Your task to perform on an android device: add a label to a message in the gmail app Image 0: 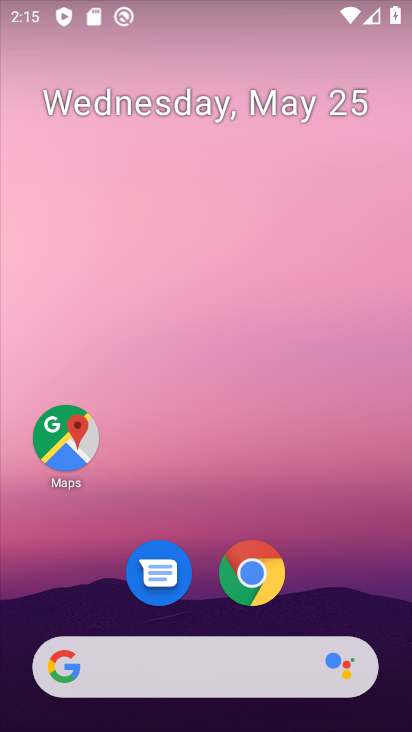
Step 0: drag from (70, 626) to (204, 146)
Your task to perform on an android device: add a label to a message in the gmail app Image 1: 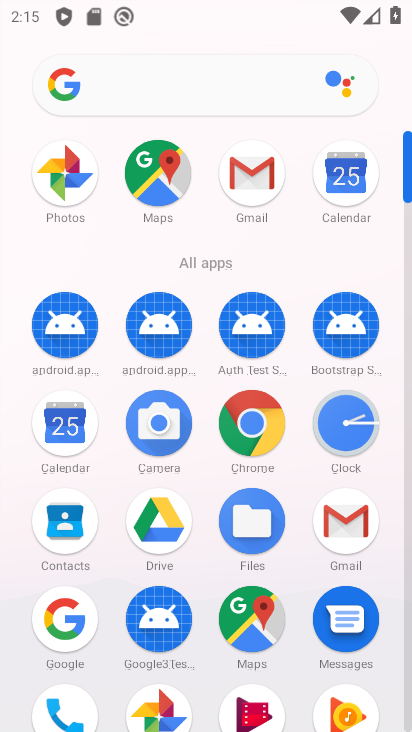
Step 1: click (337, 540)
Your task to perform on an android device: add a label to a message in the gmail app Image 2: 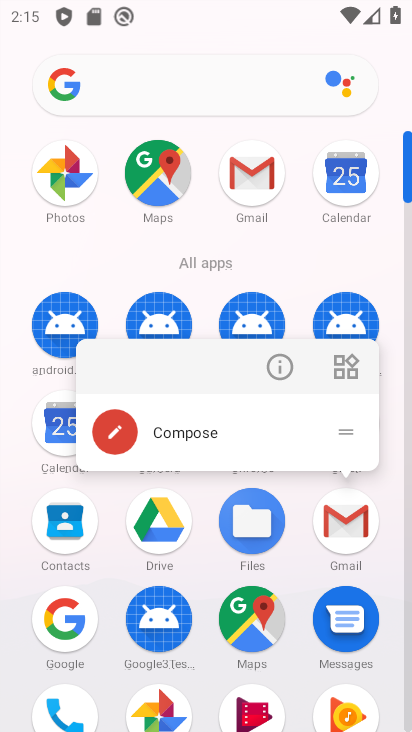
Step 2: click (341, 530)
Your task to perform on an android device: add a label to a message in the gmail app Image 3: 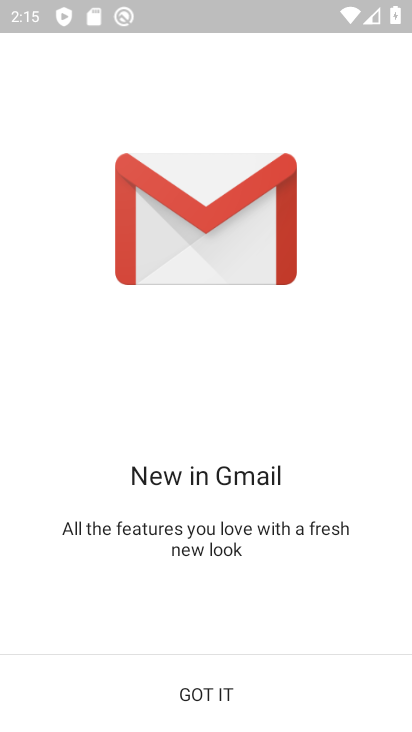
Step 3: click (215, 704)
Your task to perform on an android device: add a label to a message in the gmail app Image 4: 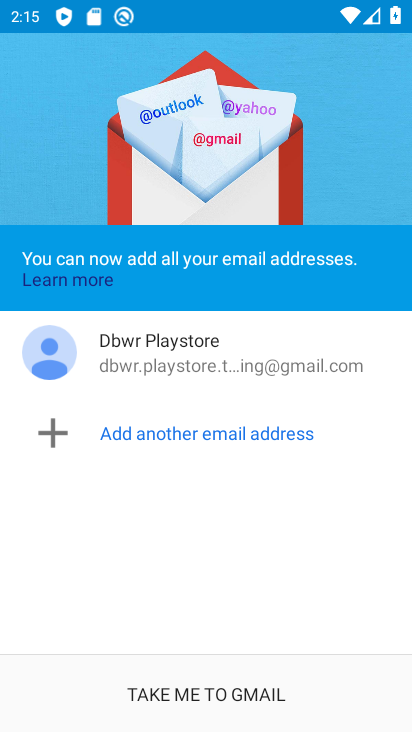
Step 4: click (214, 694)
Your task to perform on an android device: add a label to a message in the gmail app Image 5: 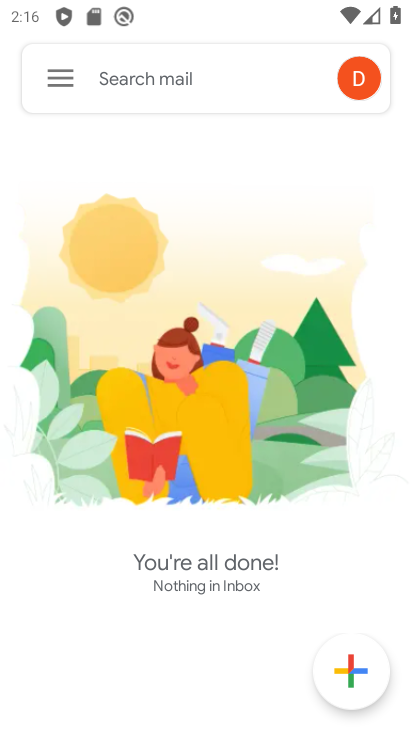
Step 5: click (51, 100)
Your task to perform on an android device: add a label to a message in the gmail app Image 6: 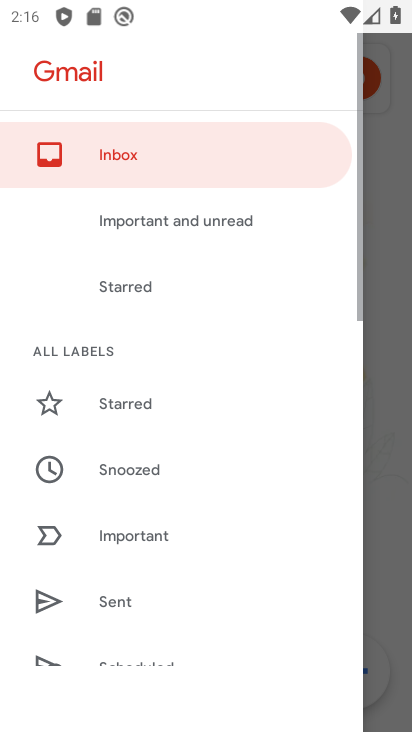
Step 6: drag from (97, 683) to (232, 226)
Your task to perform on an android device: add a label to a message in the gmail app Image 7: 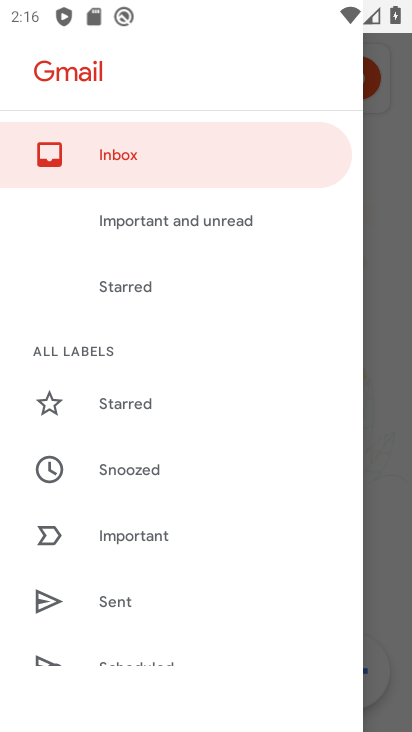
Step 7: drag from (167, 630) to (261, 235)
Your task to perform on an android device: add a label to a message in the gmail app Image 8: 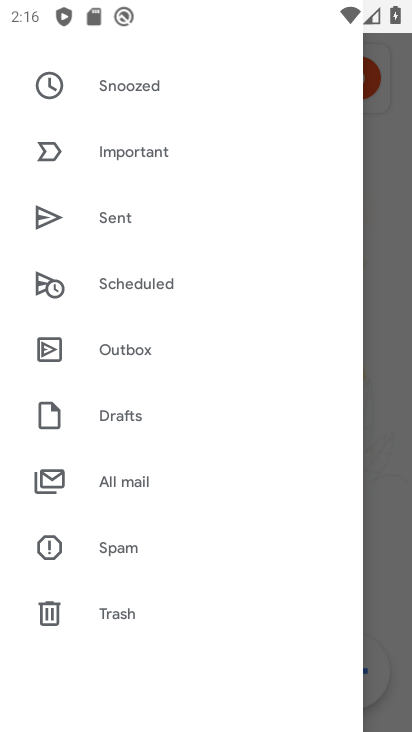
Step 8: click (183, 489)
Your task to perform on an android device: add a label to a message in the gmail app Image 9: 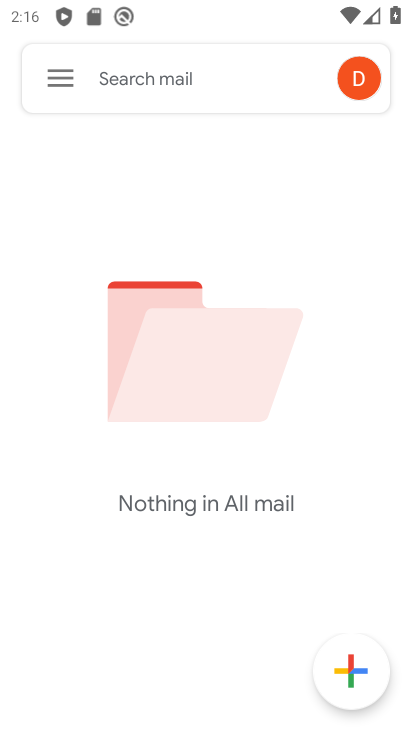
Step 9: task complete